Your task to perform on an android device: turn on the 12-hour format for clock Image 0: 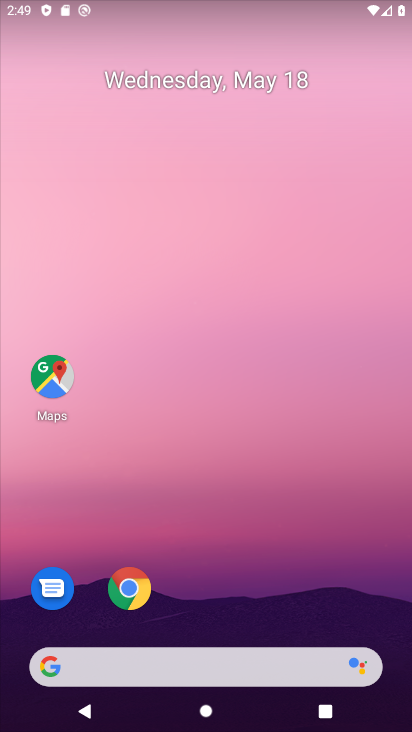
Step 0: press home button
Your task to perform on an android device: turn on the 12-hour format for clock Image 1: 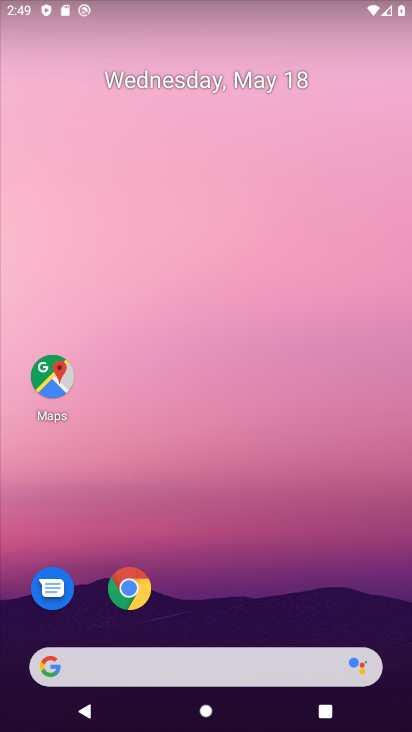
Step 1: drag from (361, 575) to (342, 254)
Your task to perform on an android device: turn on the 12-hour format for clock Image 2: 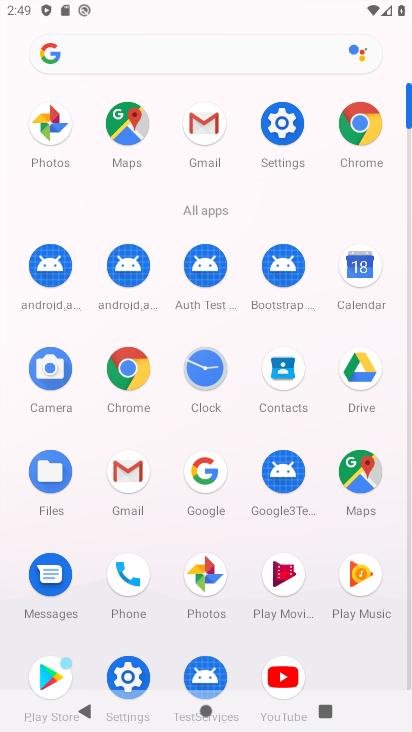
Step 2: click (204, 385)
Your task to perform on an android device: turn on the 12-hour format for clock Image 3: 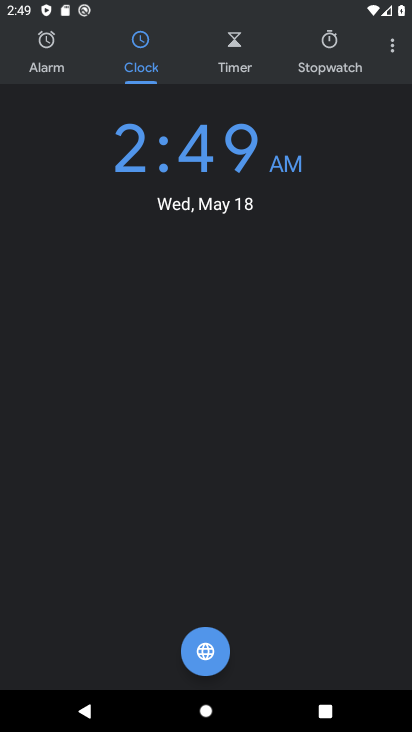
Step 3: click (381, 66)
Your task to perform on an android device: turn on the 12-hour format for clock Image 4: 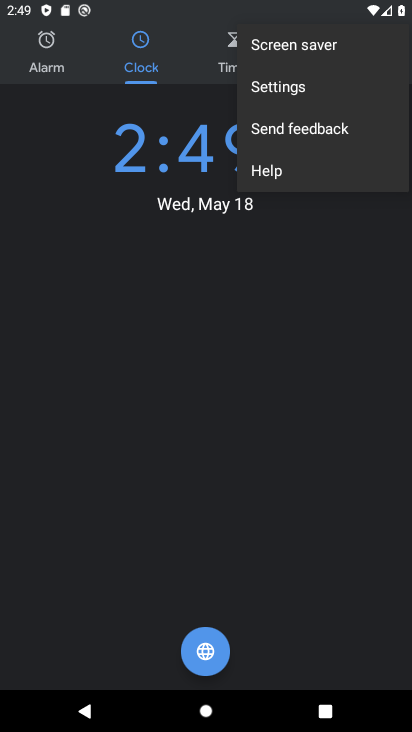
Step 4: click (333, 92)
Your task to perform on an android device: turn on the 12-hour format for clock Image 5: 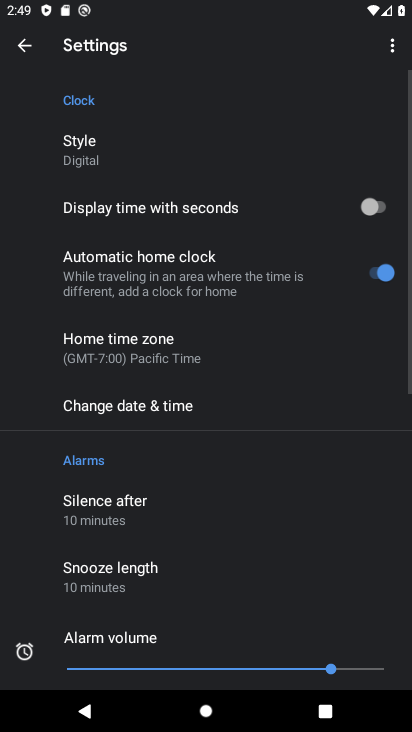
Step 5: drag from (235, 547) to (244, 214)
Your task to perform on an android device: turn on the 12-hour format for clock Image 6: 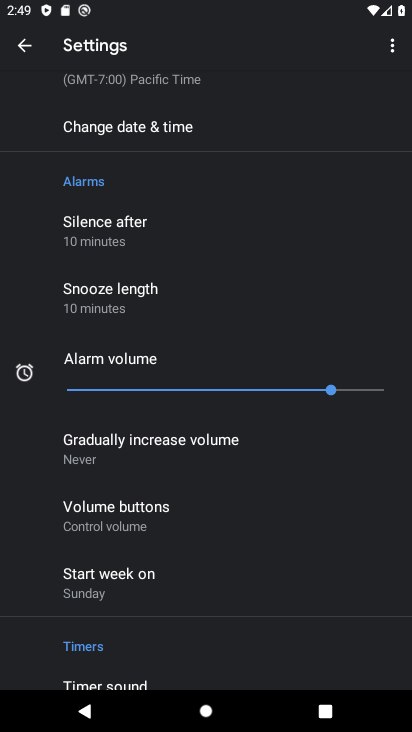
Step 6: drag from (255, 545) to (269, 307)
Your task to perform on an android device: turn on the 12-hour format for clock Image 7: 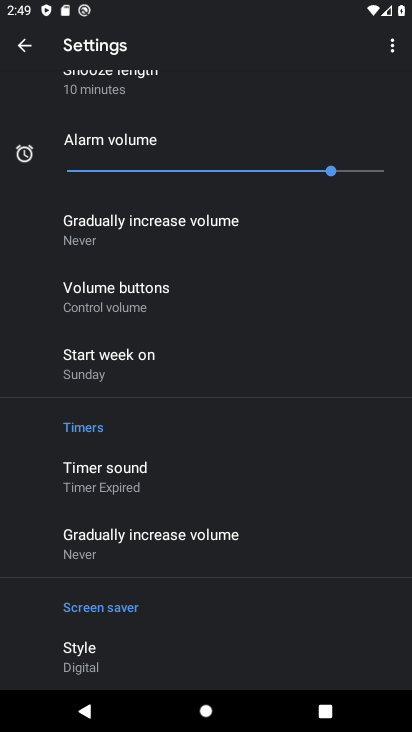
Step 7: drag from (264, 314) to (242, 644)
Your task to perform on an android device: turn on the 12-hour format for clock Image 8: 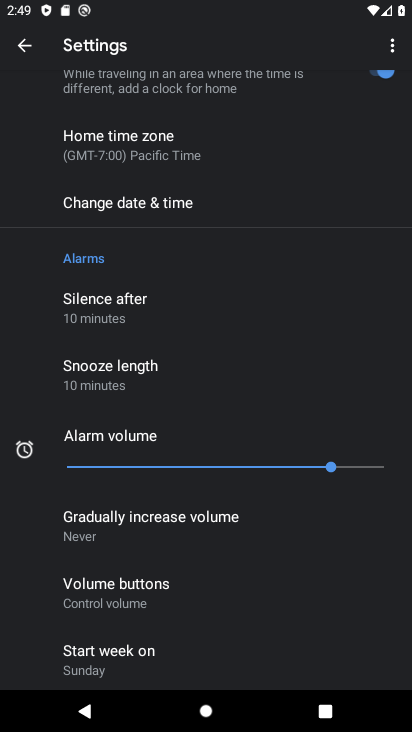
Step 8: click (184, 216)
Your task to perform on an android device: turn on the 12-hour format for clock Image 9: 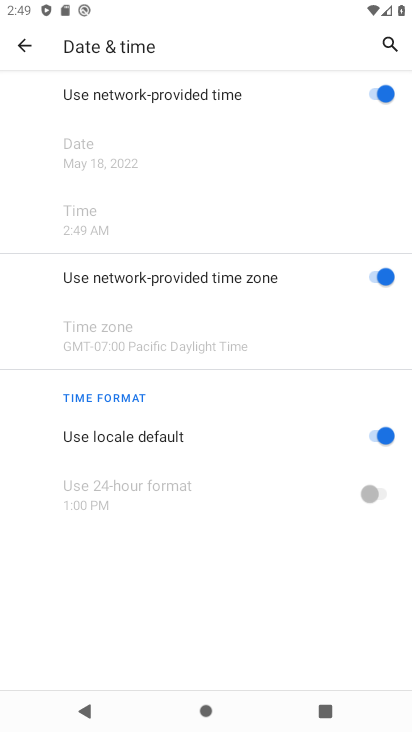
Step 9: task complete